Your task to perform on an android device: create a new album in the google photos Image 0: 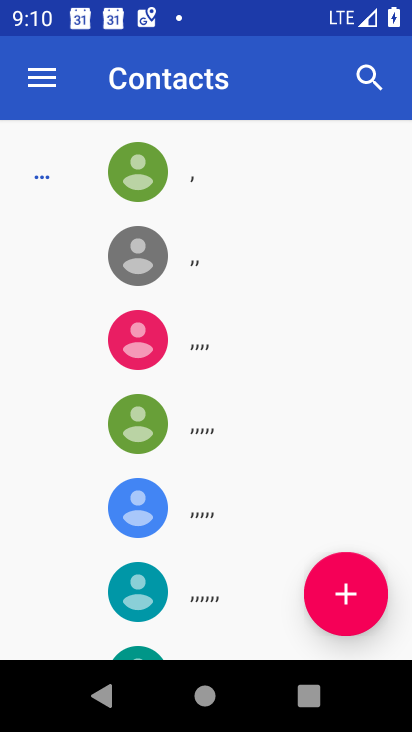
Step 0: press home button
Your task to perform on an android device: create a new album in the google photos Image 1: 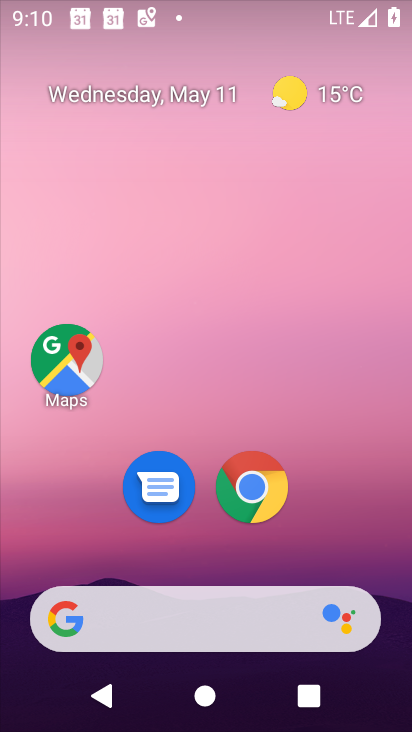
Step 1: drag from (231, 640) to (288, 206)
Your task to perform on an android device: create a new album in the google photos Image 2: 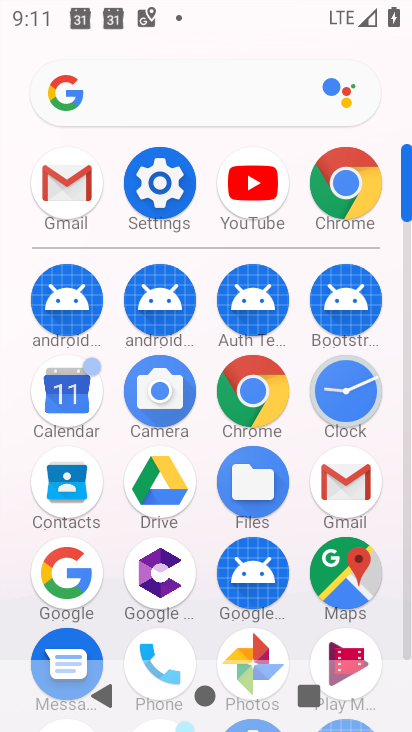
Step 2: click (237, 637)
Your task to perform on an android device: create a new album in the google photos Image 3: 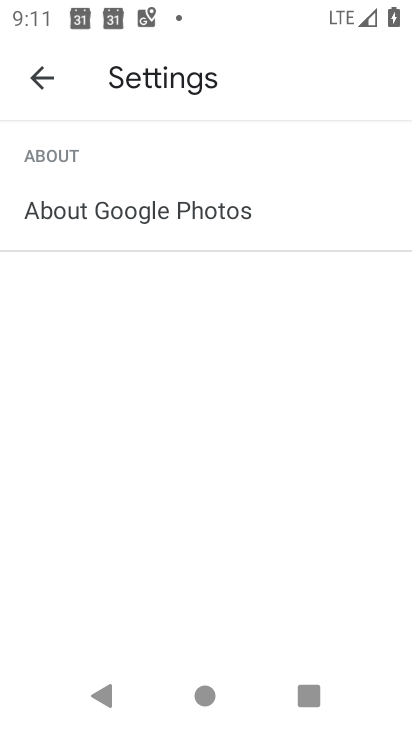
Step 3: click (31, 83)
Your task to perform on an android device: create a new album in the google photos Image 4: 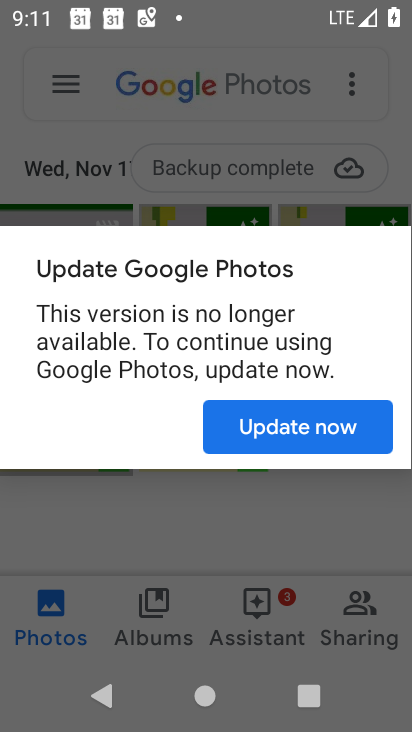
Step 4: click (274, 422)
Your task to perform on an android device: create a new album in the google photos Image 5: 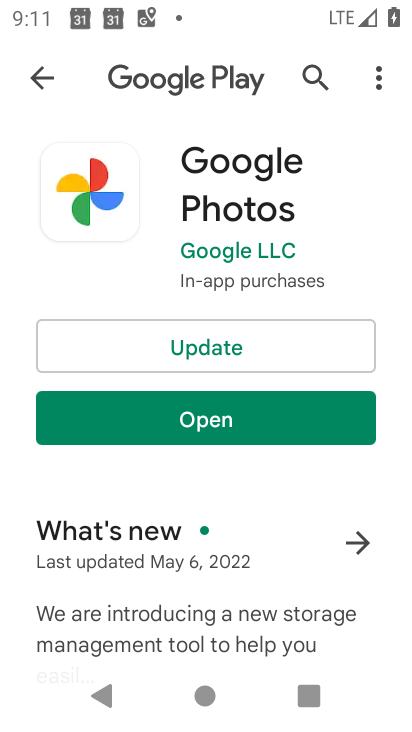
Step 5: click (236, 411)
Your task to perform on an android device: create a new album in the google photos Image 6: 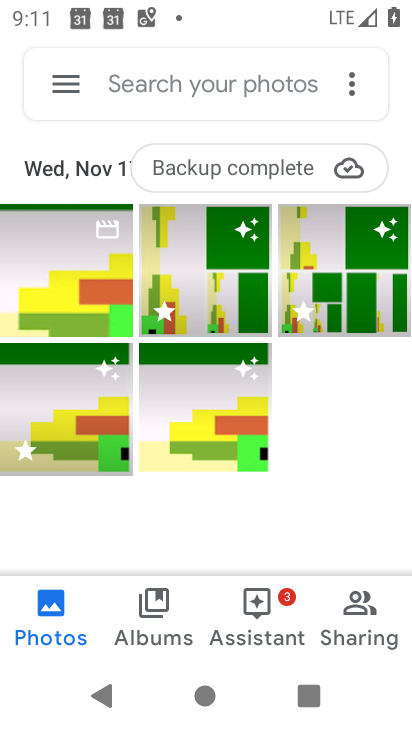
Step 6: click (385, 292)
Your task to perform on an android device: create a new album in the google photos Image 7: 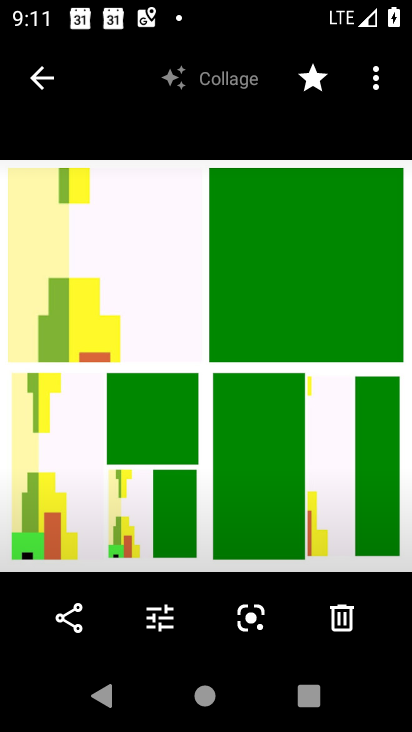
Step 7: click (376, 61)
Your task to perform on an android device: create a new album in the google photos Image 8: 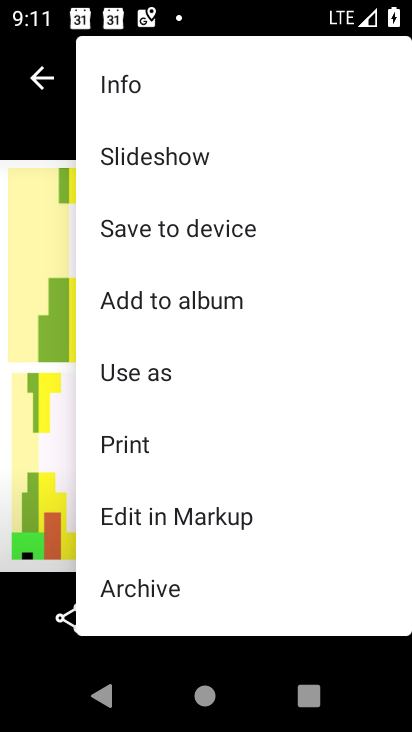
Step 8: click (153, 307)
Your task to perform on an android device: create a new album in the google photos Image 9: 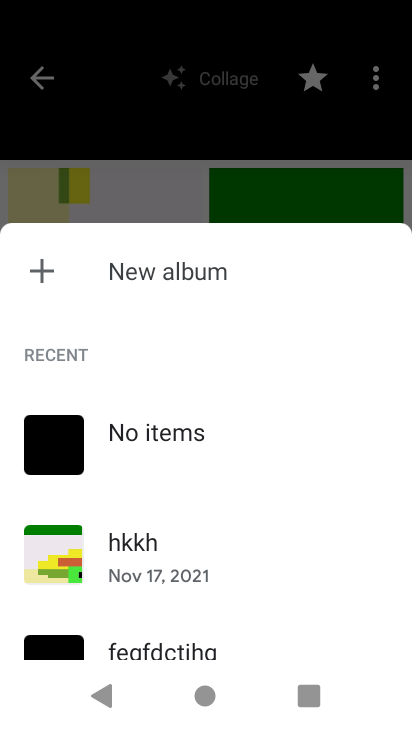
Step 9: click (169, 278)
Your task to perform on an android device: create a new album in the google photos Image 10: 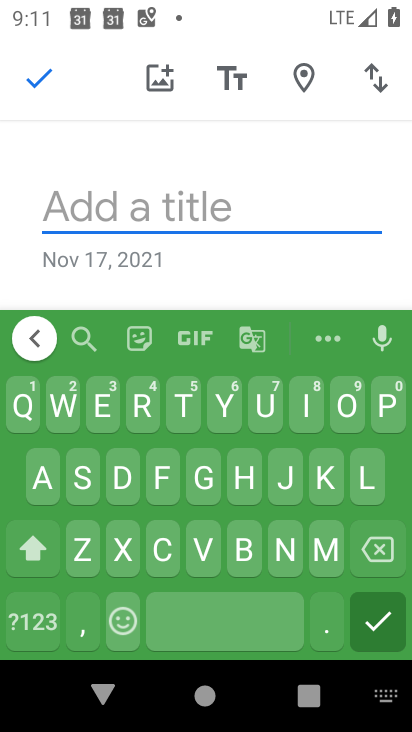
Step 10: click (196, 410)
Your task to perform on an android device: create a new album in the google photos Image 11: 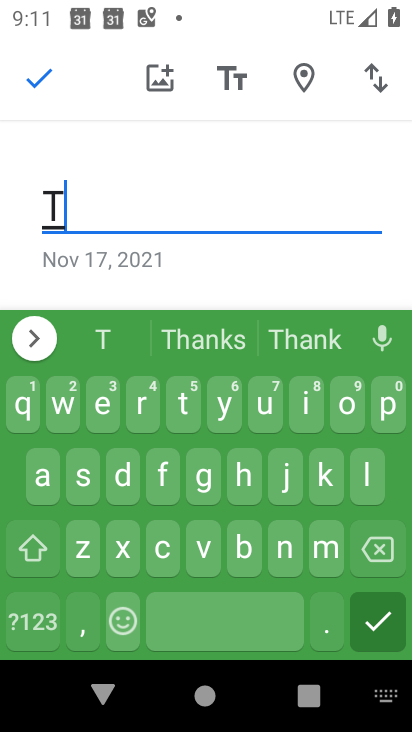
Step 11: click (163, 485)
Your task to perform on an android device: create a new album in the google photos Image 12: 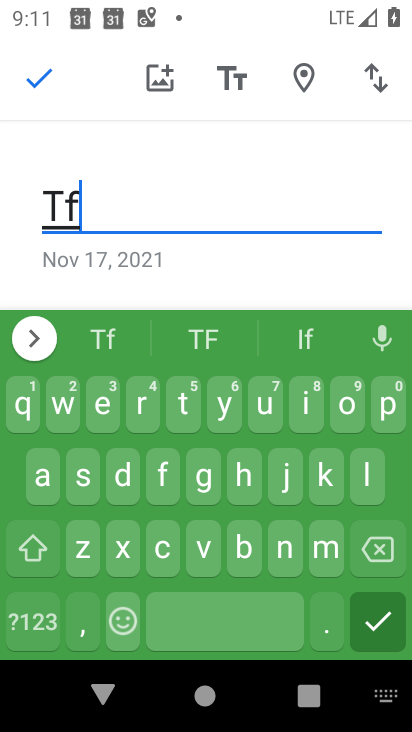
Step 12: click (31, 86)
Your task to perform on an android device: create a new album in the google photos Image 13: 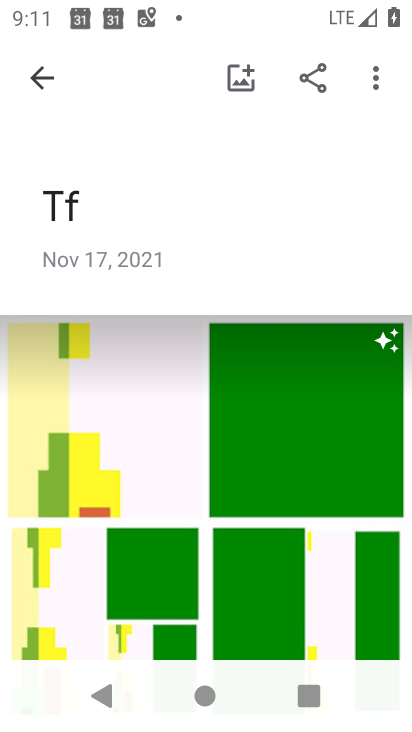
Step 13: task complete